Your task to perform on an android device: View the shopping cart on newegg. Search for "macbook" on newegg, select the first entry, add it to the cart, then select checkout. Image 0: 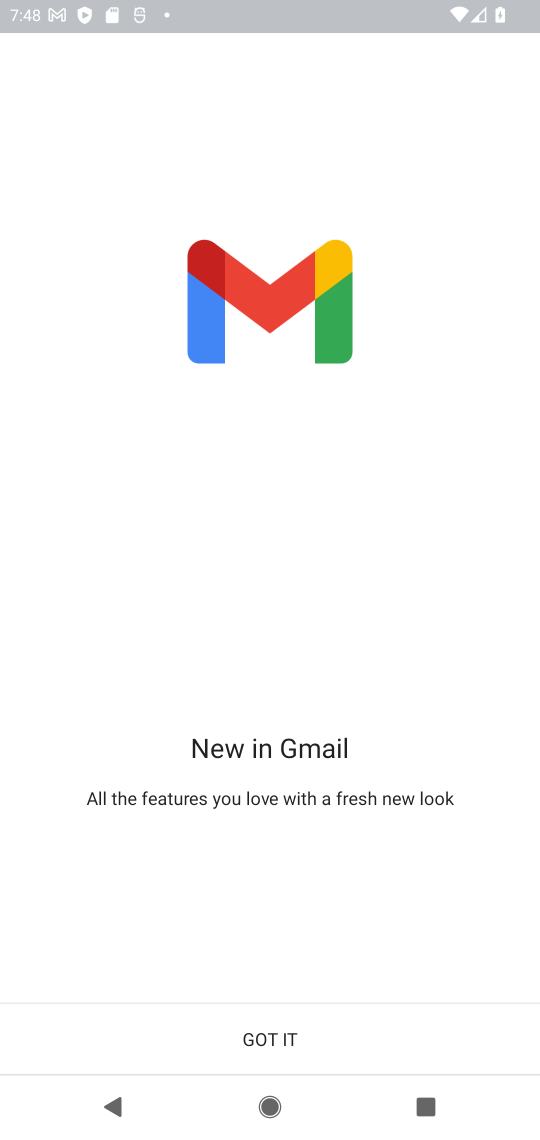
Step 0: press home button
Your task to perform on an android device: View the shopping cart on newegg. Search for "macbook" on newegg, select the first entry, add it to the cart, then select checkout. Image 1: 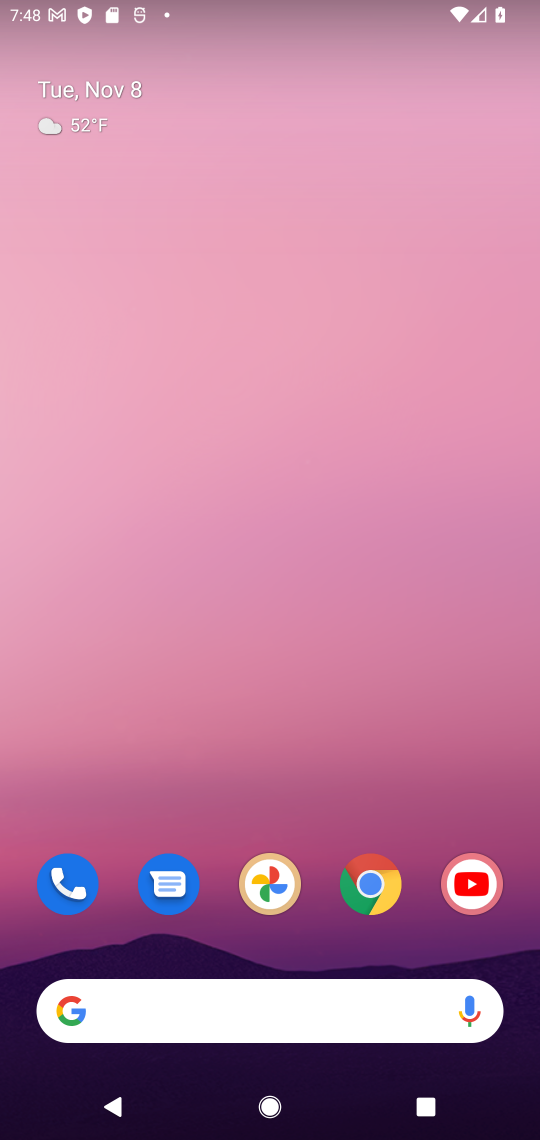
Step 1: drag from (226, 956) to (209, 646)
Your task to perform on an android device: View the shopping cart on newegg. Search for "macbook" on newegg, select the first entry, add it to the cart, then select checkout. Image 2: 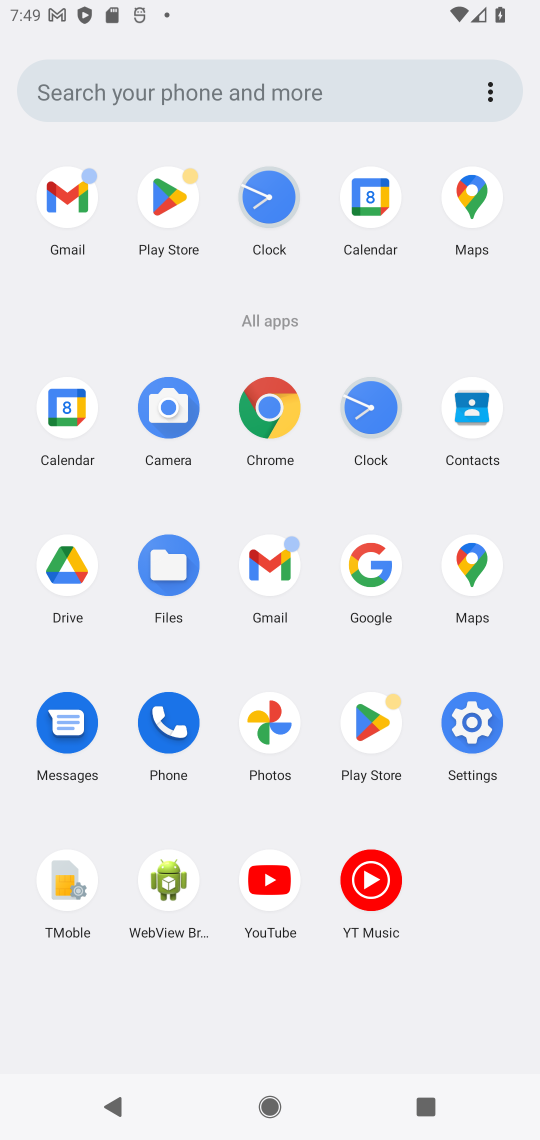
Step 2: click (363, 568)
Your task to perform on an android device: View the shopping cart on newegg. Search for "macbook" on newegg, select the first entry, add it to the cart, then select checkout. Image 3: 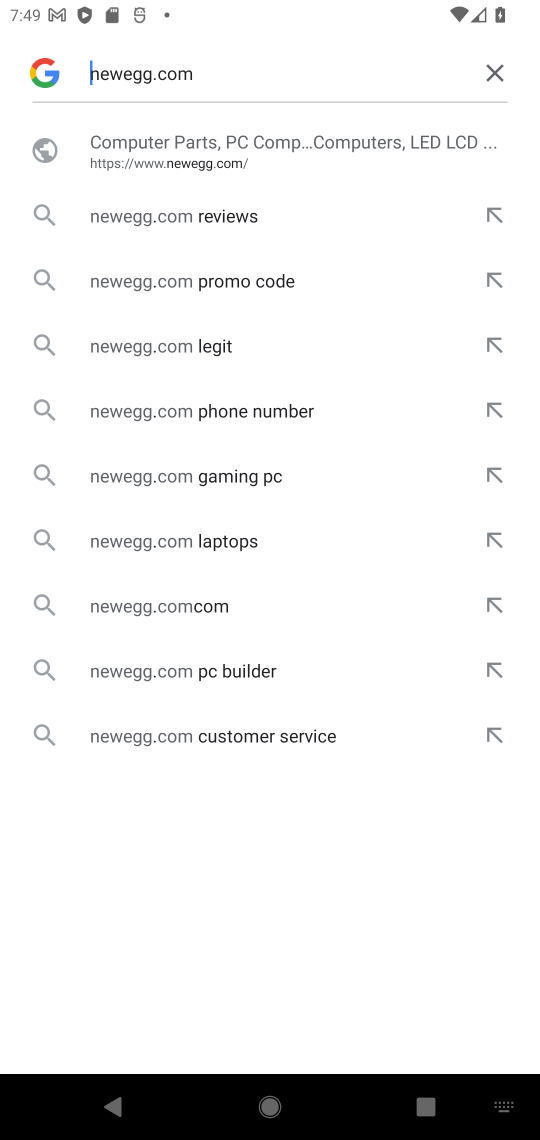
Step 3: click (492, 67)
Your task to perform on an android device: View the shopping cart on newegg. Search for "macbook" on newegg, select the first entry, add it to the cart, then select checkout. Image 4: 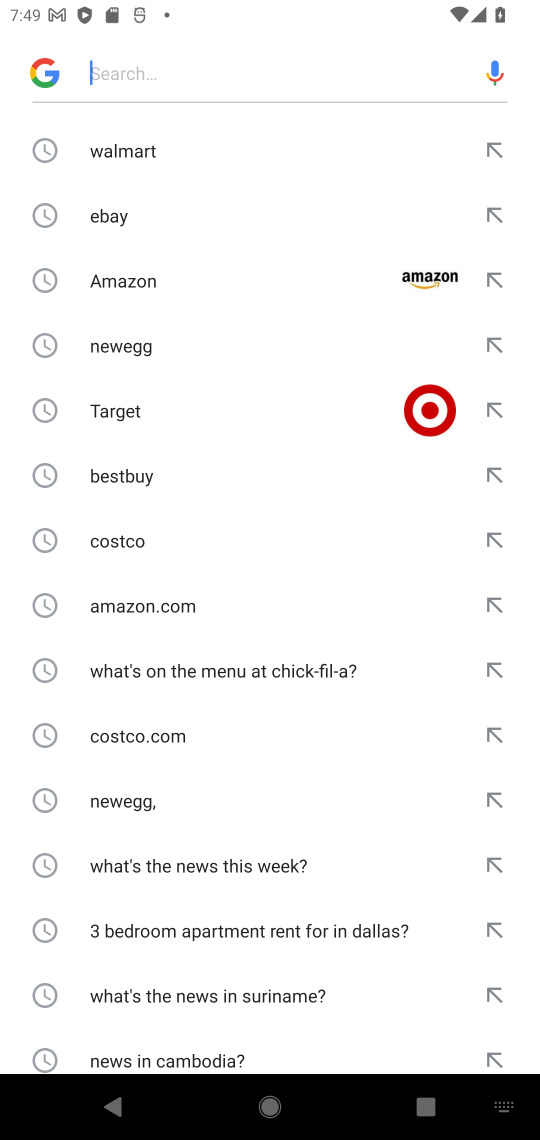
Step 4: type "newegg"
Your task to perform on an android device: View the shopping cart on newegg. Search for "macbook" on newegg, select the first entry, add it to the cart, then select checkout. Image 5: 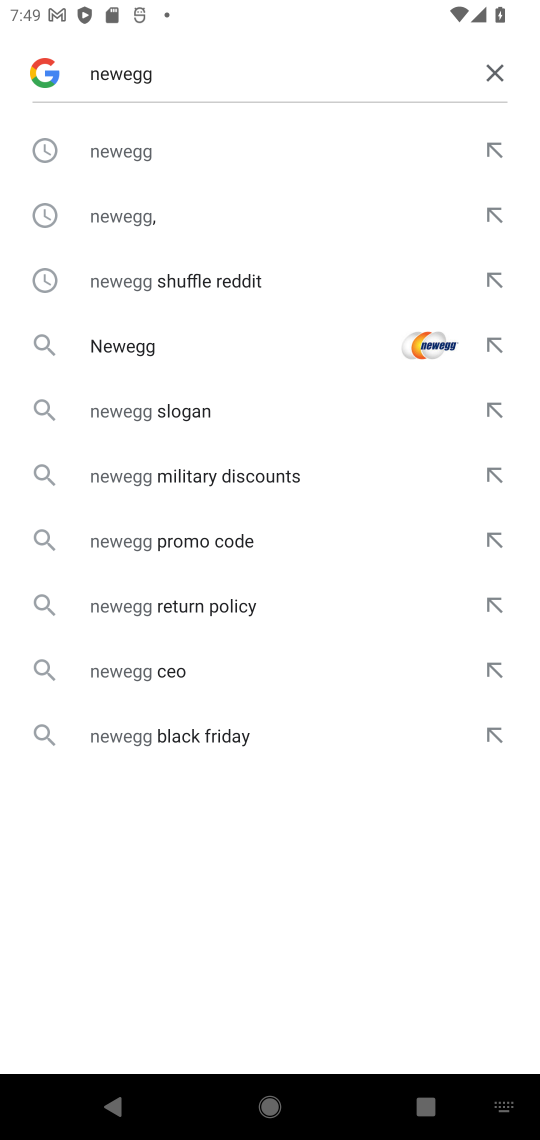
Step 5: click (245, 161)
Your task to perform on an android device: View the shopping cart on newegg. Search for "macbook" on newegg, select the first entry, add it to the cart, then select checkout. Image 6: 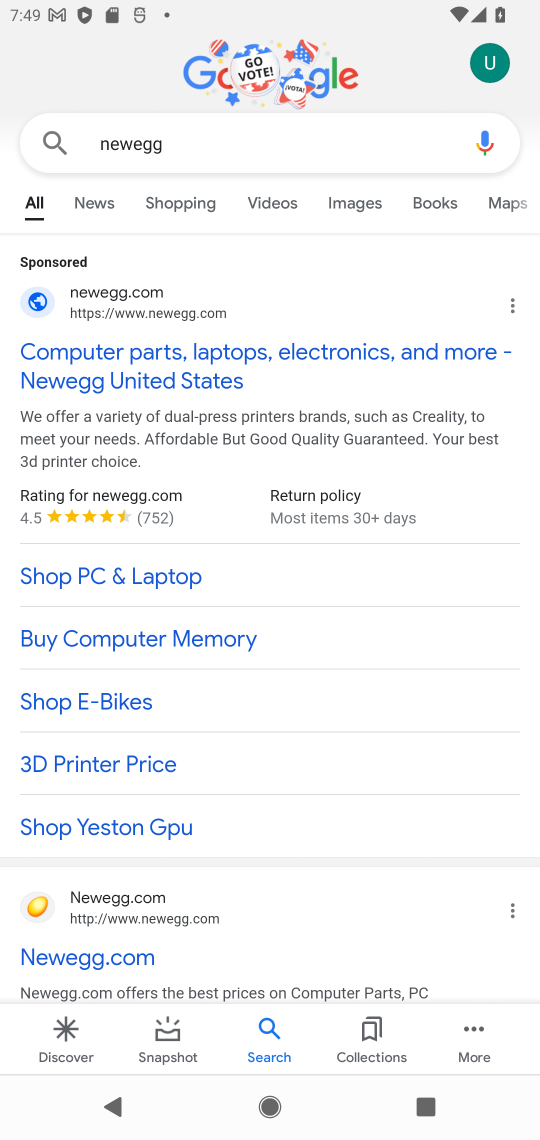
Step 6: click (189, 372)
Your task to perform on an android device: View the shopping cart on newegg. Search for "macbook" on newegg, select the first entry, add it to the cart, then select checkout. Image 7: 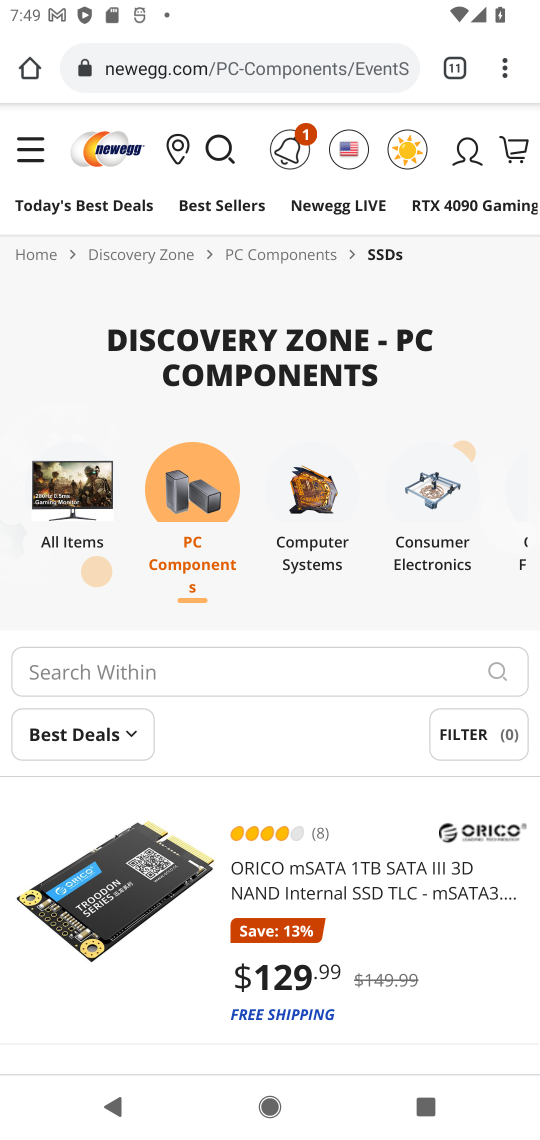
Step 7: click (514, 154)
Your task to perform on an android device: View the shopping cart on newegg. Search for "macbook" on newegg, select the first entry, add it to the cart, then select checkout. Image 8: 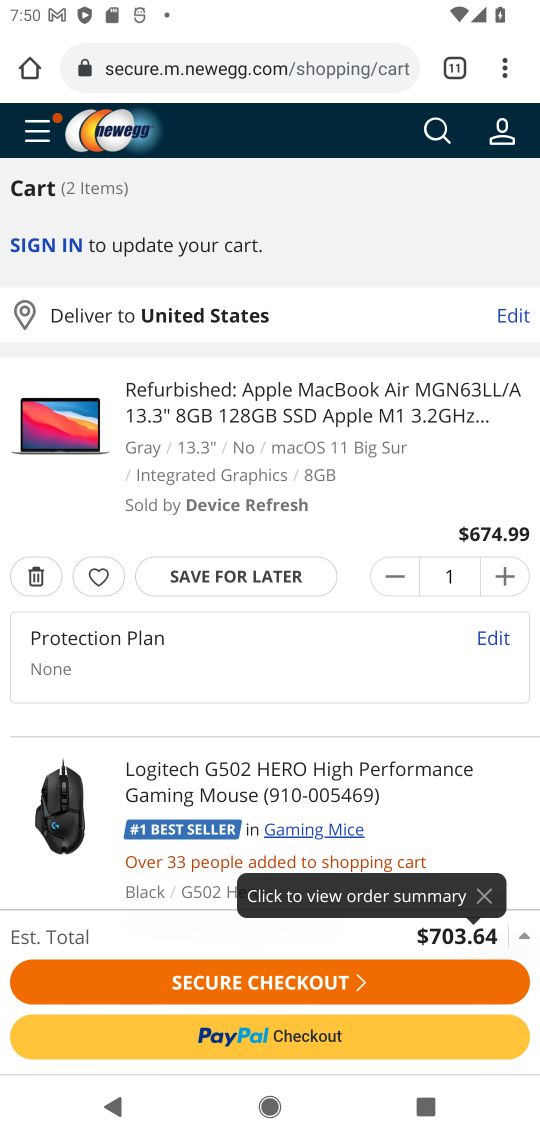
Step 8: click (430, 123)
Your task to perform on an android device: View the shopping cart on newegg. Search for "macbook" on newegg, select the first entry, add it to the cart, then select checkout. Image 9: 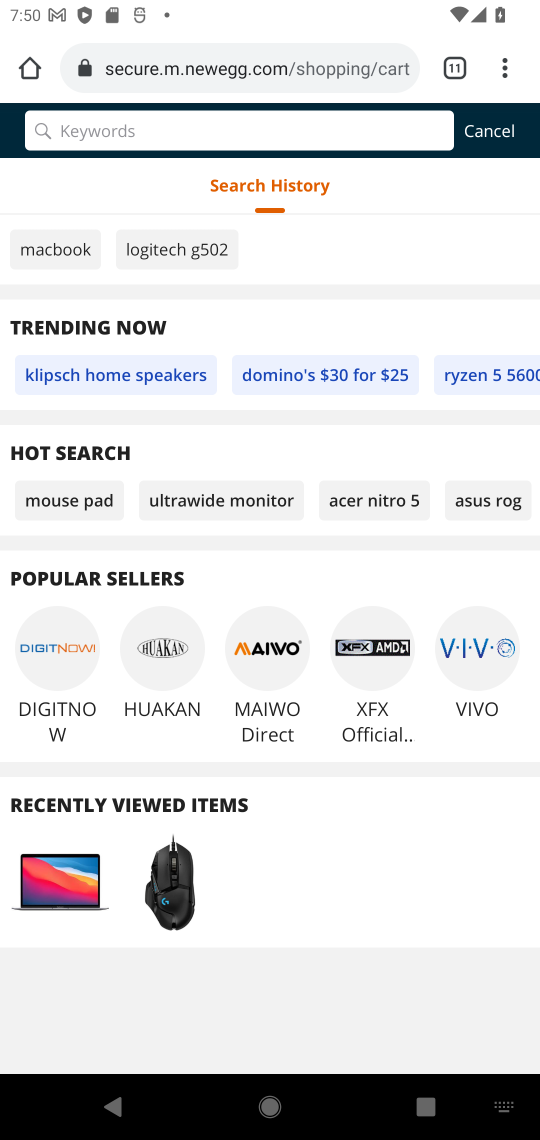
Step 9: type "macbook"
Your task to perform on an android device: View the shopping cart on newegg. Search for "macbook" on newegg, select the first entry, add it to the cart, then select checkout. Image 10: 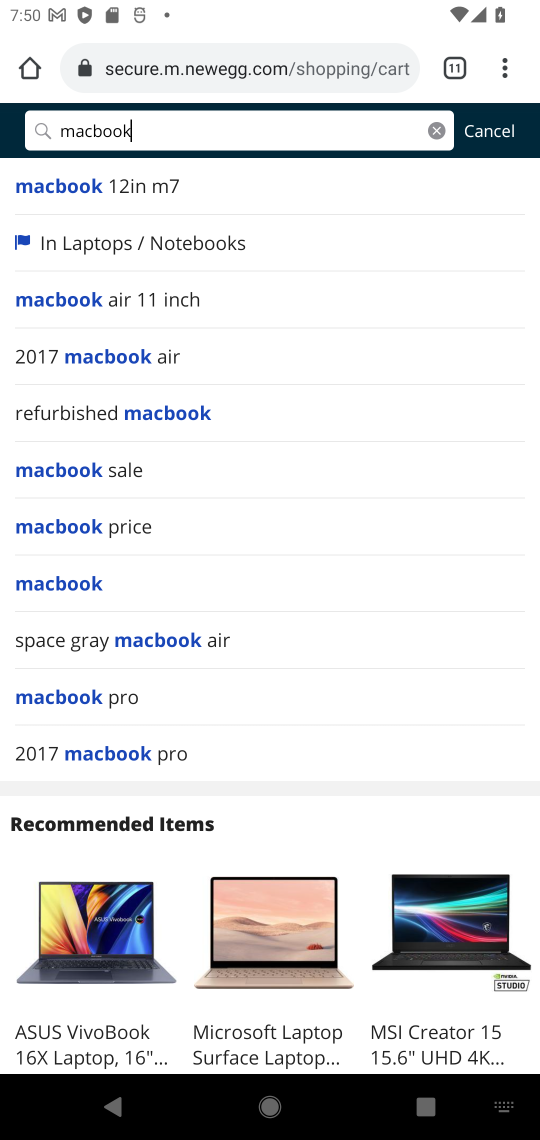
Step 10: click (108, 587)
Your task to perform on an android device: View the shopping cart on newegg. Search for "macbook" on newegg, select the first entry, add it to the cart, then select checkout. Image 11: 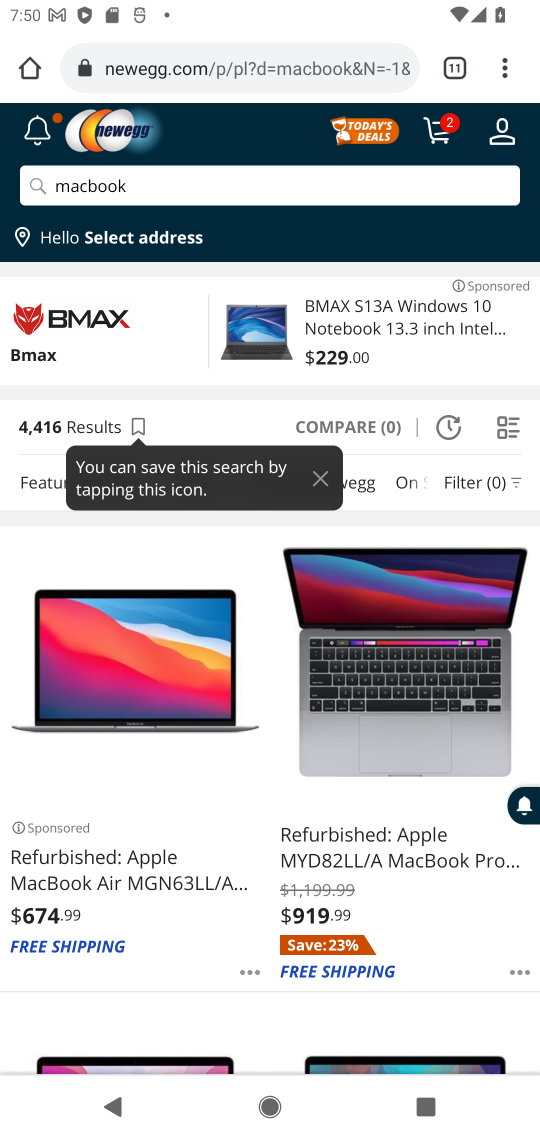
Step 11: click (125, 677)
Your task to perform on an android device: View the shopping cart on newegg. Search for "macbook" on newegg, select the first entry, add it to the cart, then select checkout. Image 12: 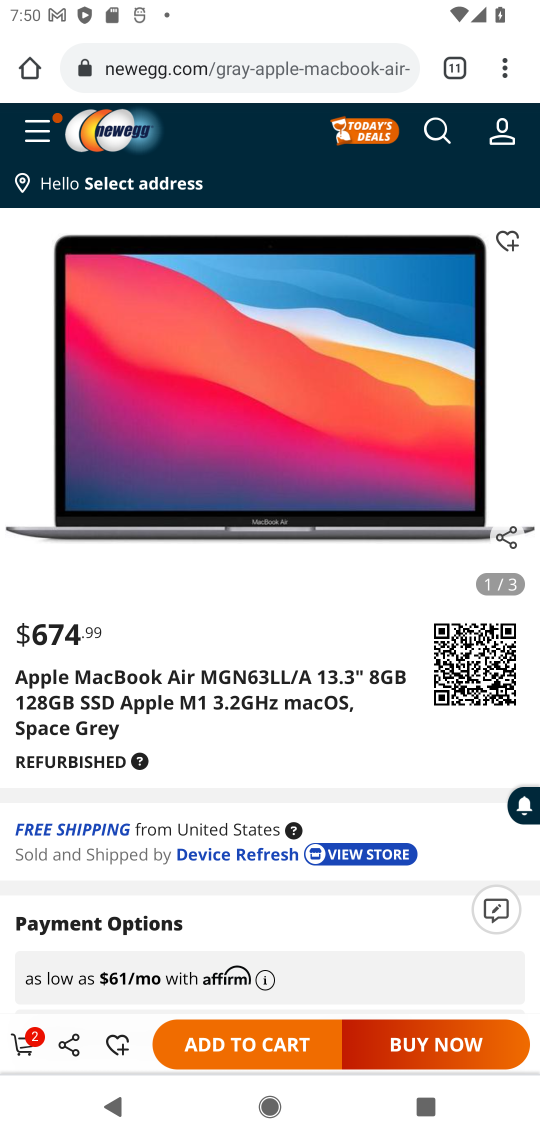
Step 12: click (291, 1047)
Your task to perform on an android device: View the shopping cart on newegg. Search for "macbook" on newegg, select the first entry, add it to the cart, then select checkout. Image 13: 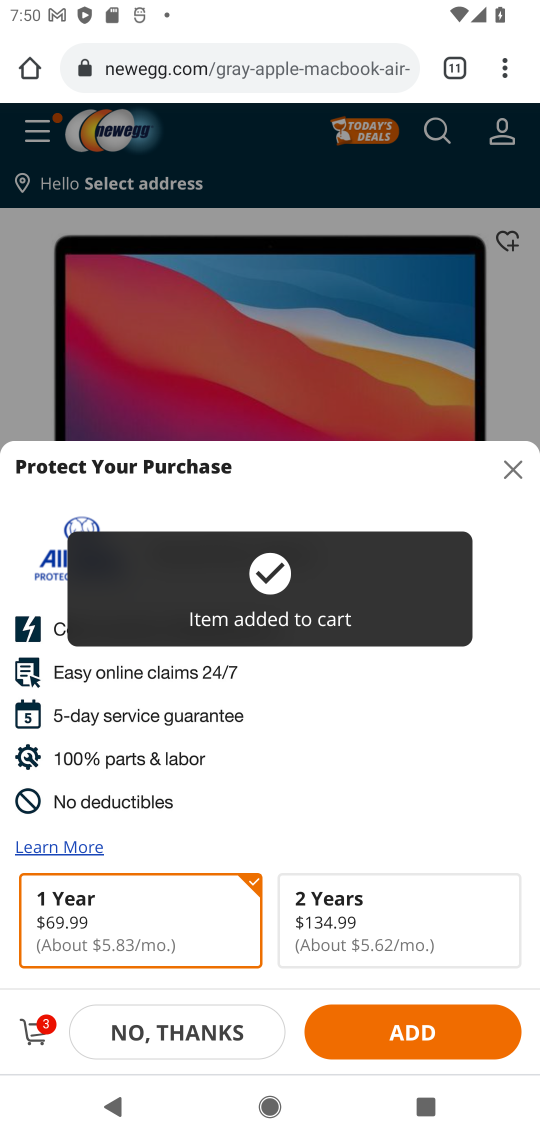
Step 13: click (42, 1032)
Your task to perform on an android device: View the shopping cart on newegg. Search for "macbook" on newegg, select the first entry, add it to the cart, then select checkout. Image 14: 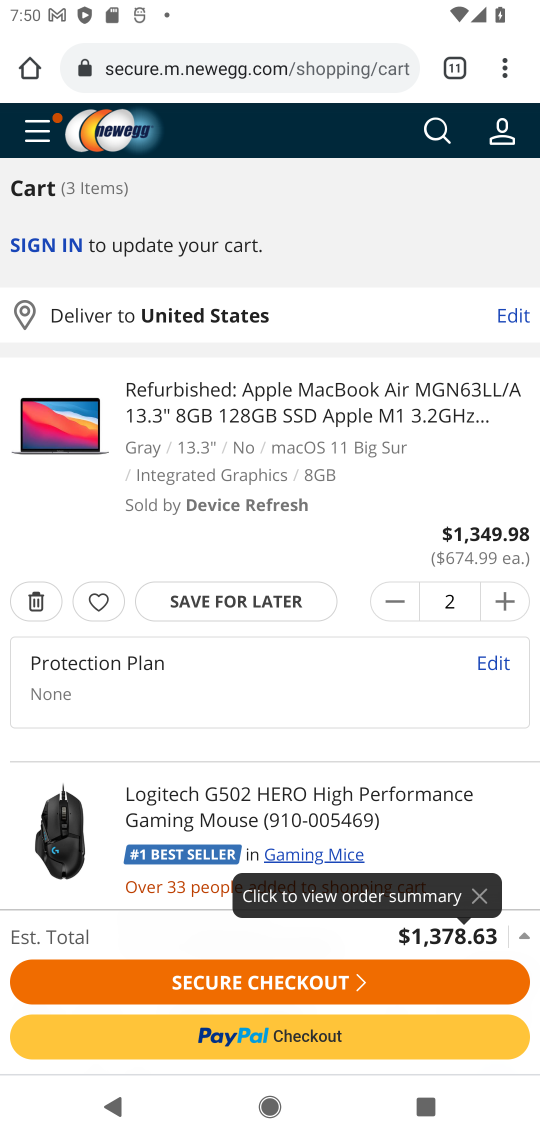
Step 14: click (250, 989)
Your task to perform on an android device: View the shopping cart on newegg. Search for "macbook" on newegg, select the first entry, add it to the cart, then select checkout. Image 15: 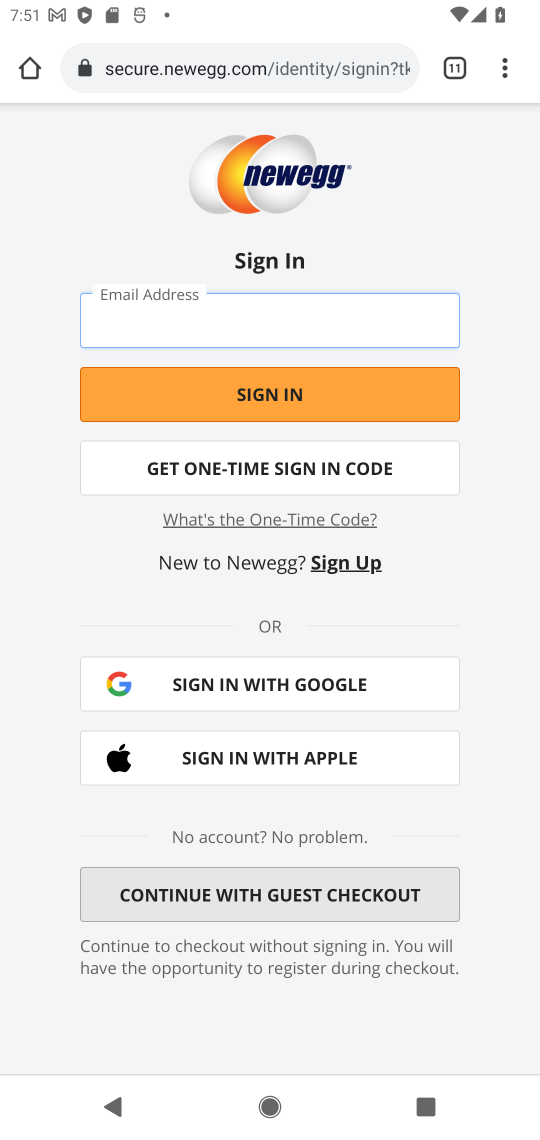
Step 15: task complete